Your task to perform on an android device: open wifi settings Image 0: 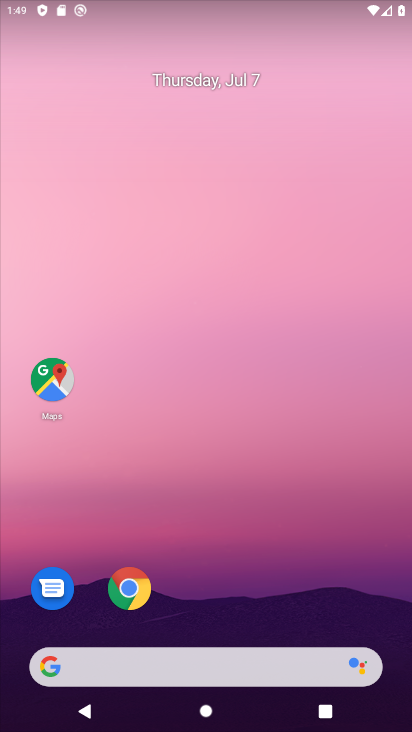
Step 0: drag from (386, 654) to (316, 19)
Your task to perform on an android device: open wifi settings Image 1: 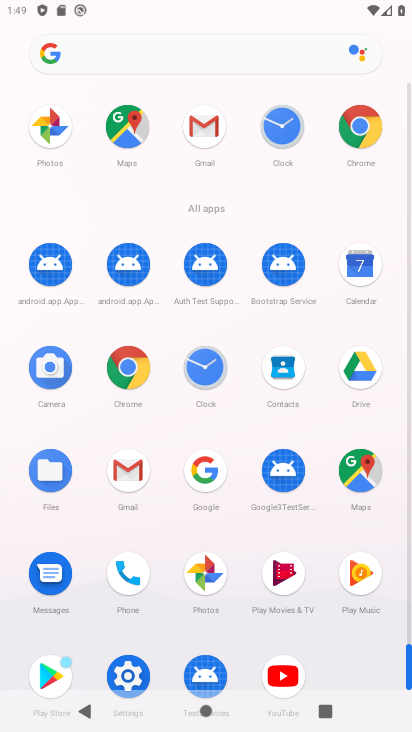
Step 1: click (408, 619)
Your task to perform on an android device: open wifi settings Image 2: 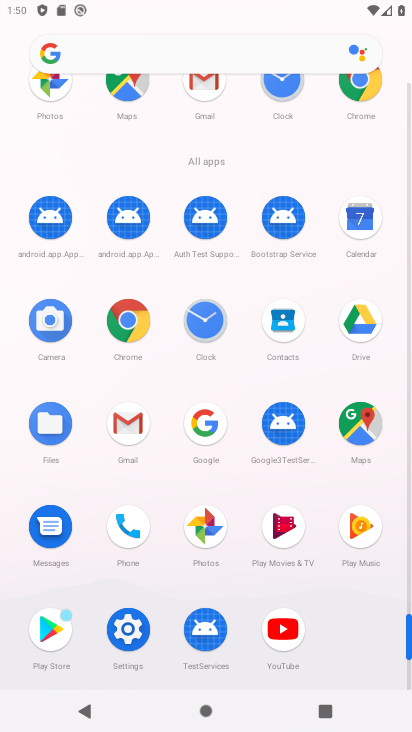
Step 2: click (127, 629)
Your task to perform on an android device: open wifi settings Image 3: 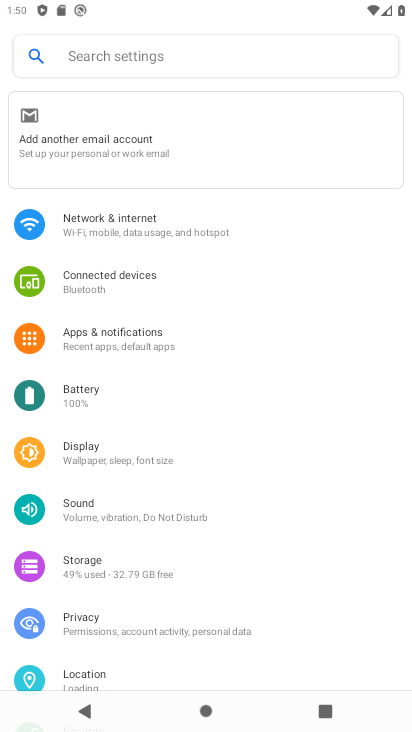
Step 3: click (116, 223)
Your task to perform on an android device: open wifi settings Image 4: 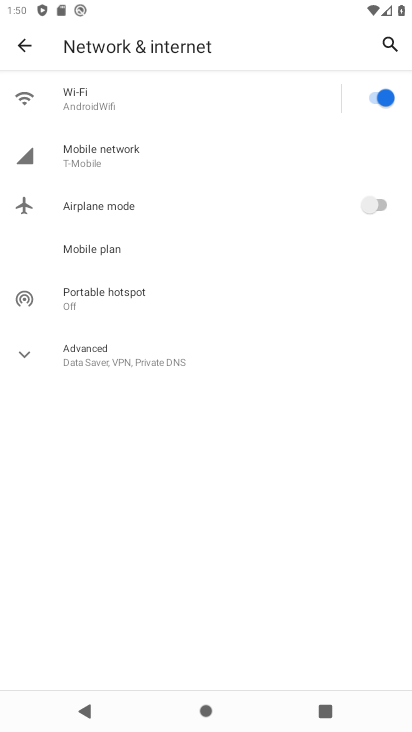
Step 4: click (75, 101)
Your task to perform on an android device: open wifi settings Image 5: 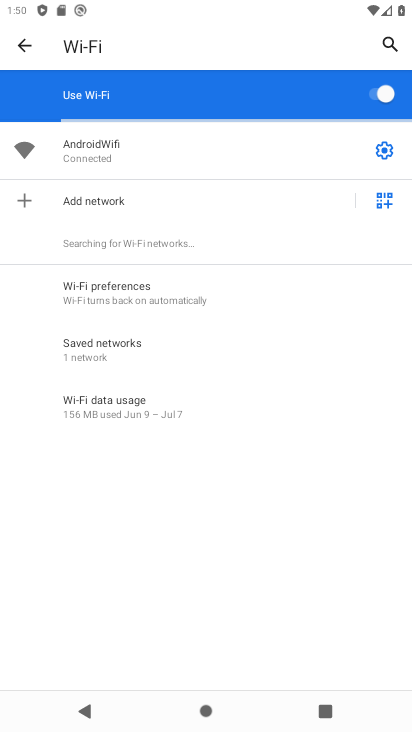
Step 5: click (385, 150)
Your task to perform on an android device: open wifi settings Image 6: 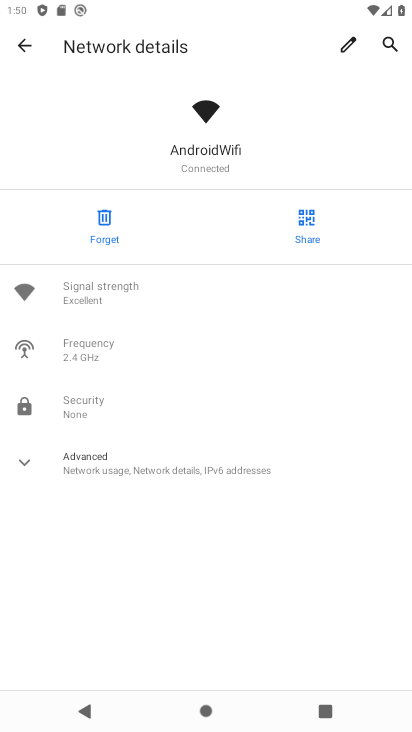
Step 6: task complete